Your task to perform on an android device: change the clock display to analog Image 0: 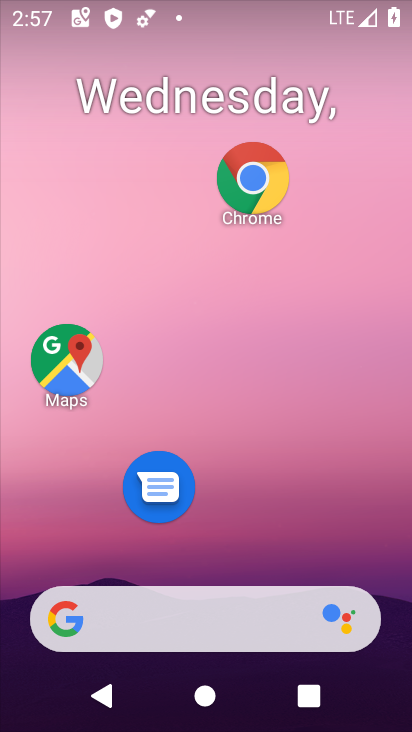
Step 0: drag from (280, 578) to (411, 98)
Your task to perform on an android device: change the clock display to analog Image 1: 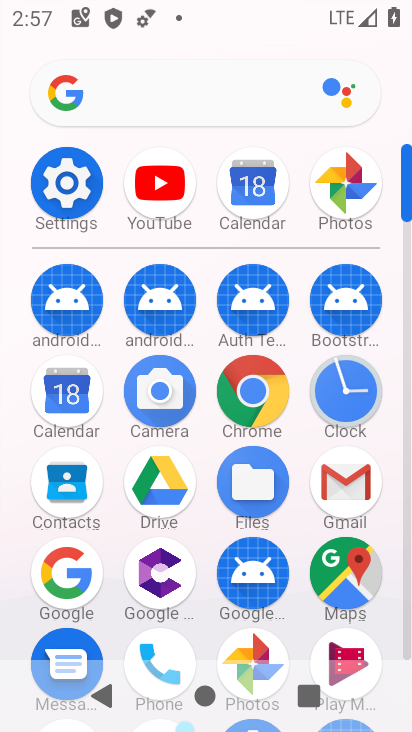
Step 1: click (336, 382)
Your task to perform on an android device: change the clock display to analog Image 2: 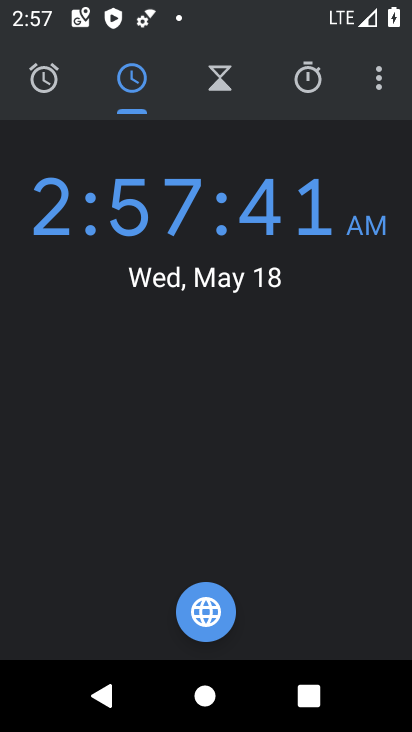
Step 2: click (371, 86)
Your task to perform on an android device: change the clock display to analog Image 3: 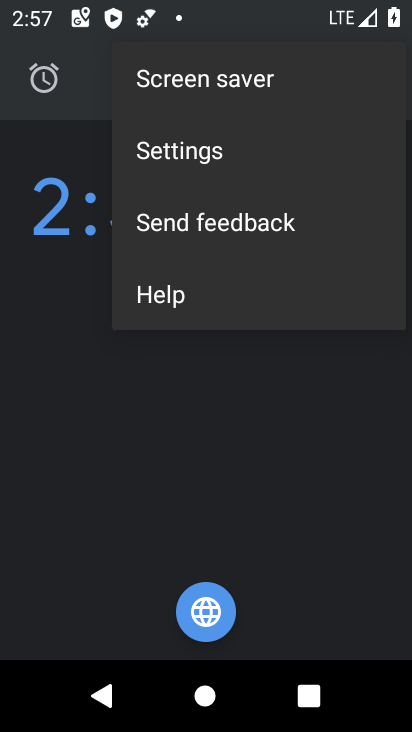
Step 3: click (288, 148)
Your task to perform on an android device: change the clock display to analog Image 4: 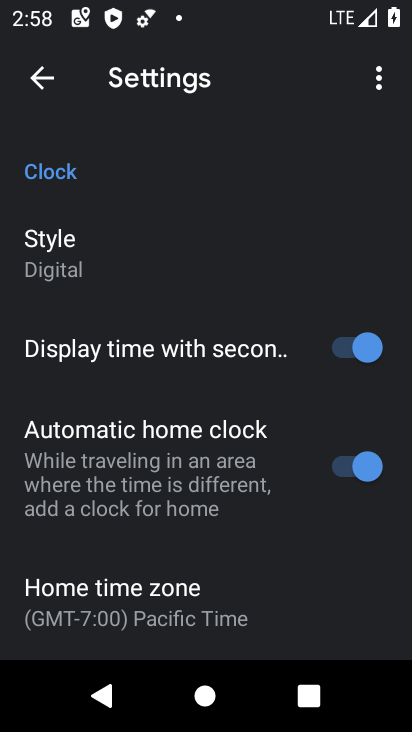
Step 4: click (148, 264)
Your task to perform on an android device: change the clock display to analog Image 5: 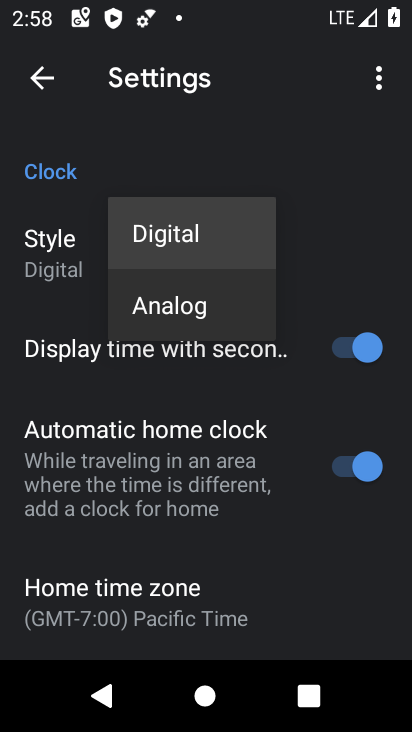
Step 5: click (174, 306)
Your task to perform on an android device: change the clock display to analog Image 6: 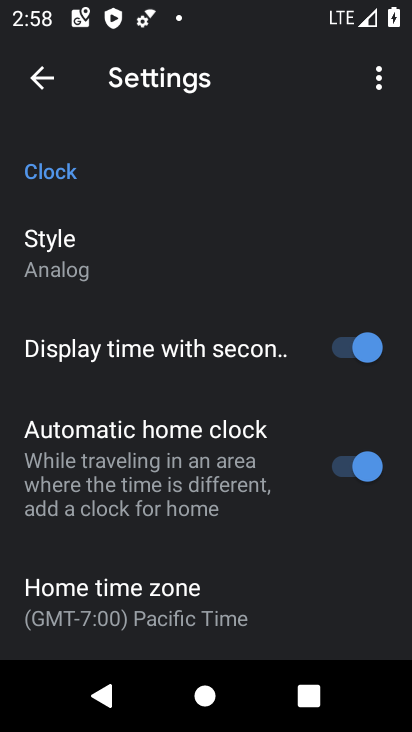
Step 6: task complete